Your task to perform on an android device: Open Google Maps Image 0: 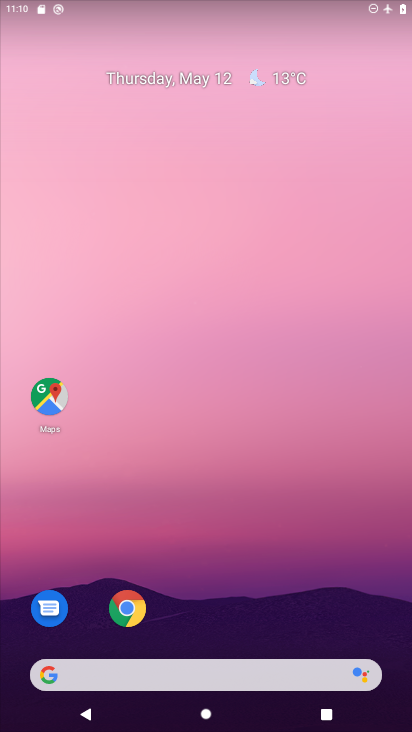
Step 0: drag from (235, 604) to (198, 103)
Your task to perform on an android device: Open Google Maps Image 1: 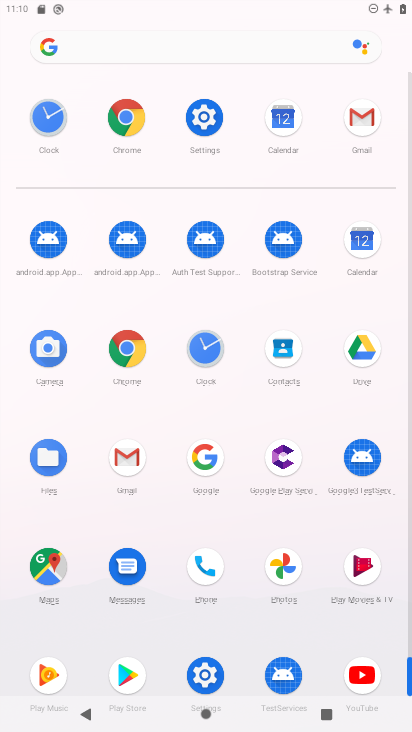
Step 1: click (47, 570)
Your task to perform on an android device: Open Google Maps Image 2: 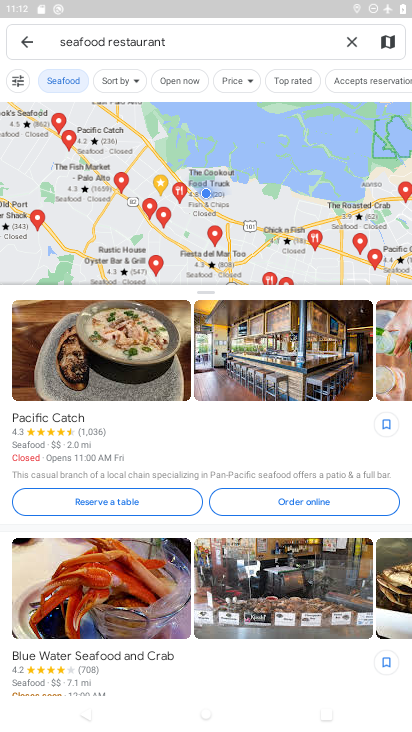
Step 2: task complete